Your task to perform on an android device: What's the weather? Image 0: 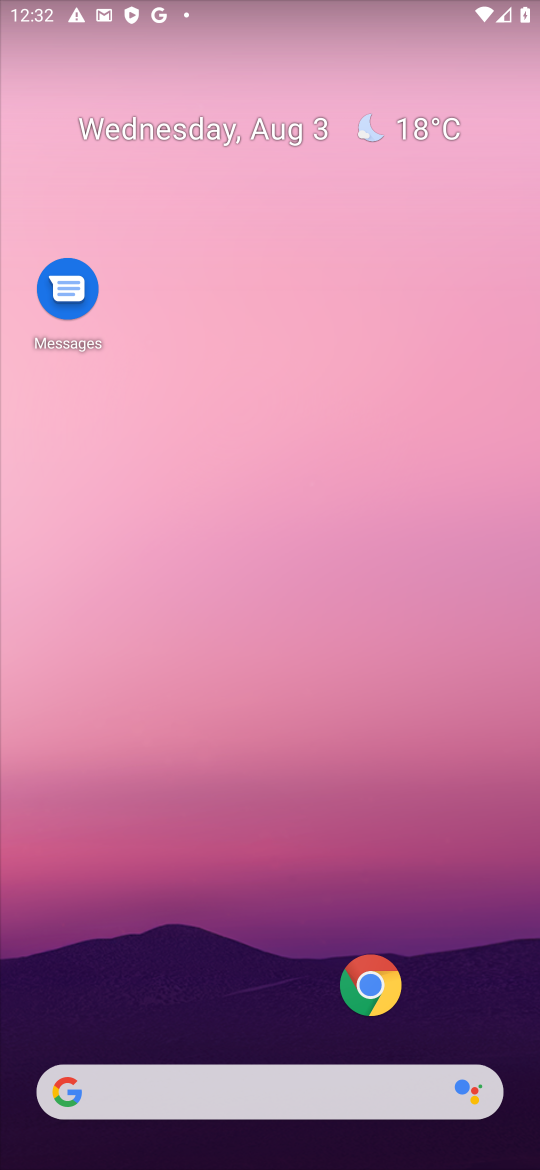
Step 0: drag from (306, 1042) to (277, 207)
Your task to perform on an android device: What's the weather? Image 1: 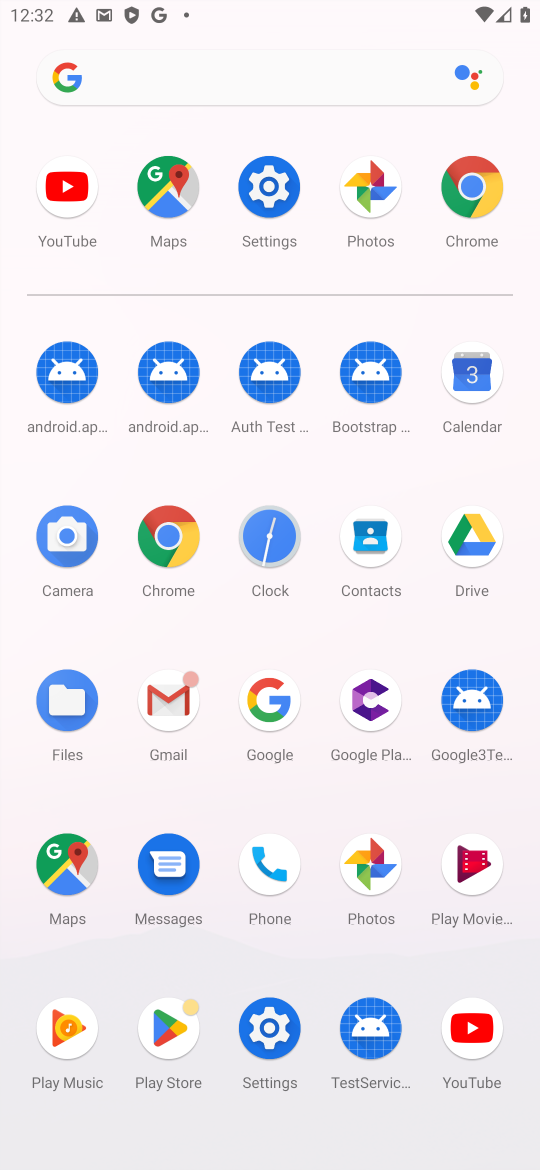
Step 1: click (198, 88)
Your task to perform on an android device: What's the weather? Image 2: 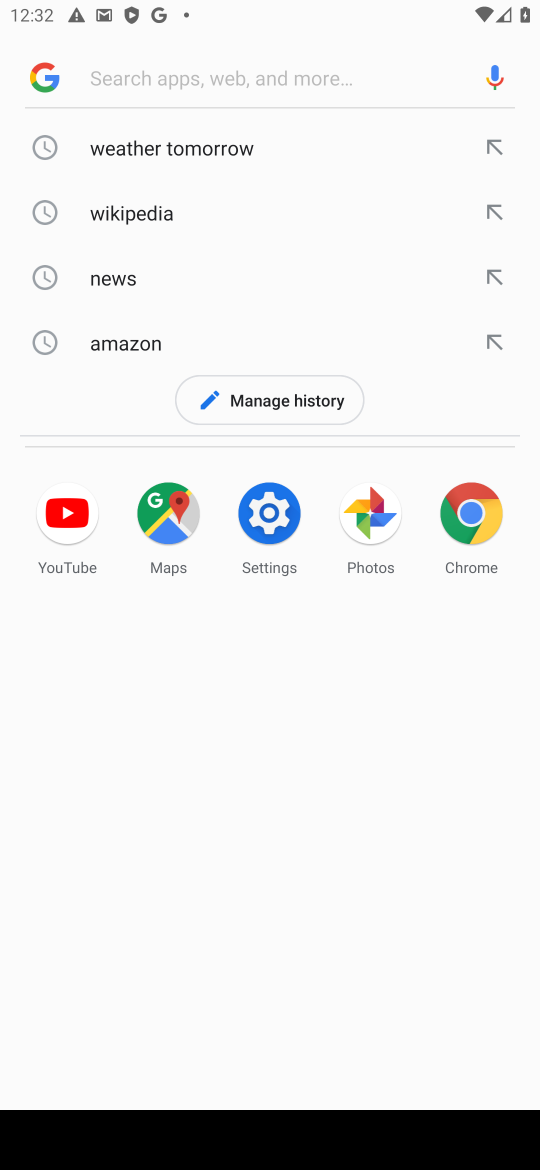
Step 2: type "weather"
Your task to perform on an android device: What's the weather? Image 3: 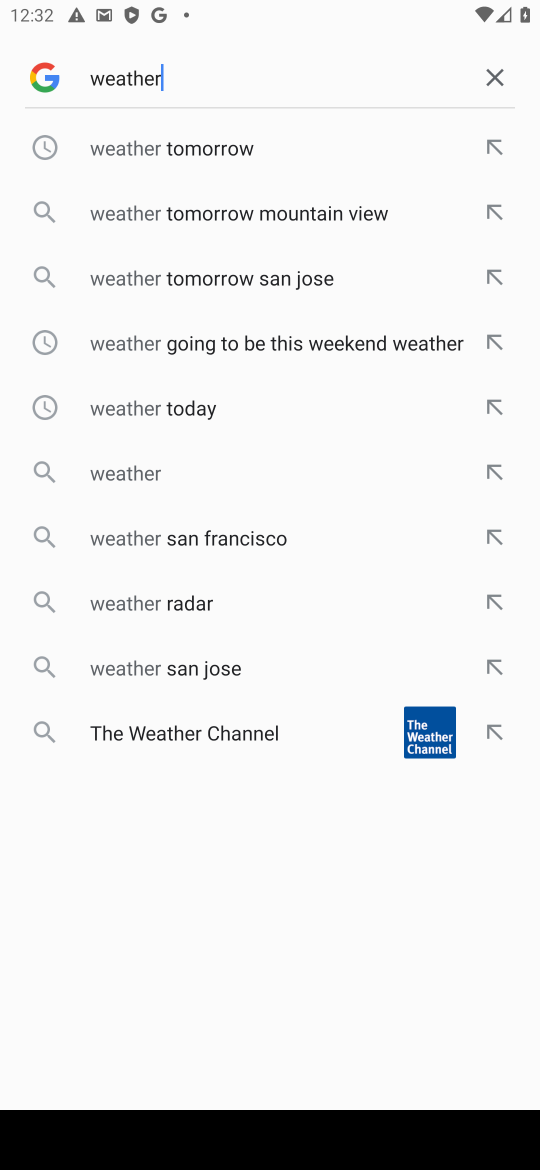
Step 3: click (223, 169)
Your task to perform on an android device: What's the weather? Image 4: 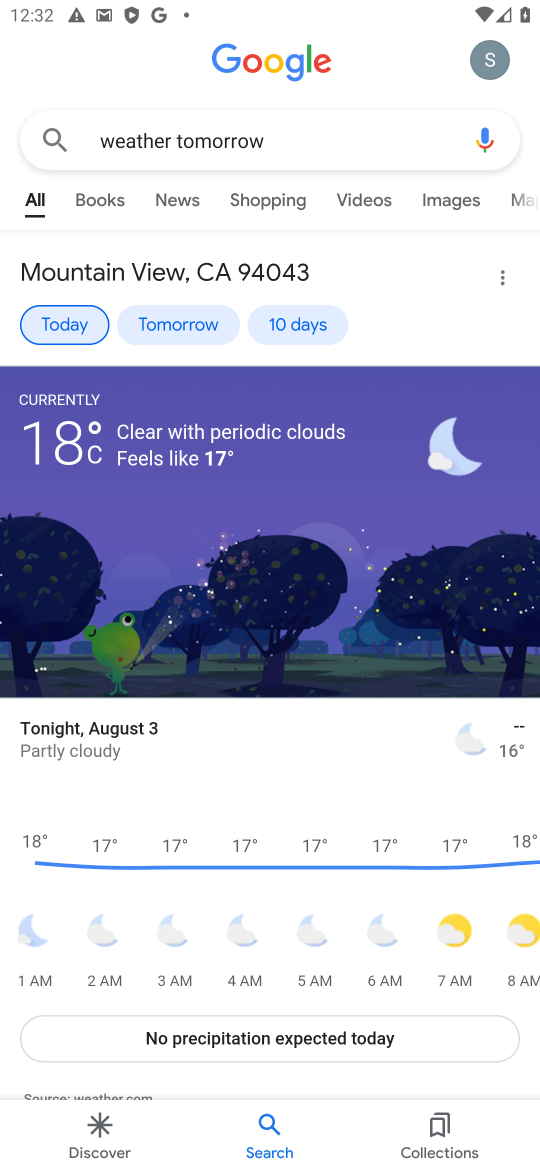
Step 4: task complete